Your task to perform on an android device: change the clock style Image 0: 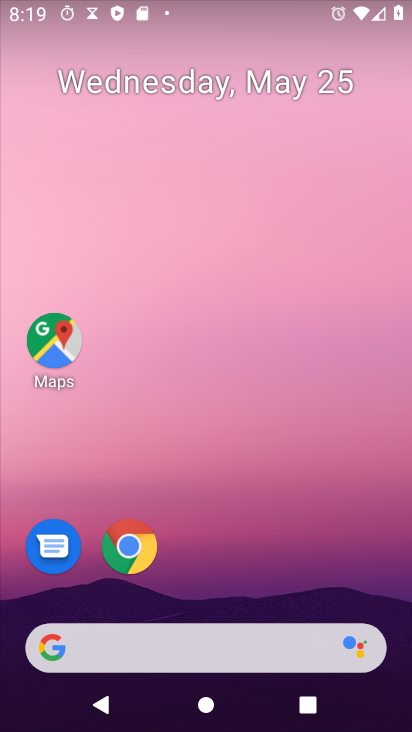
Step 0: drag from (200, 570) to (332, 9)
Your task to perform on an android device: change the clock style Image 1: 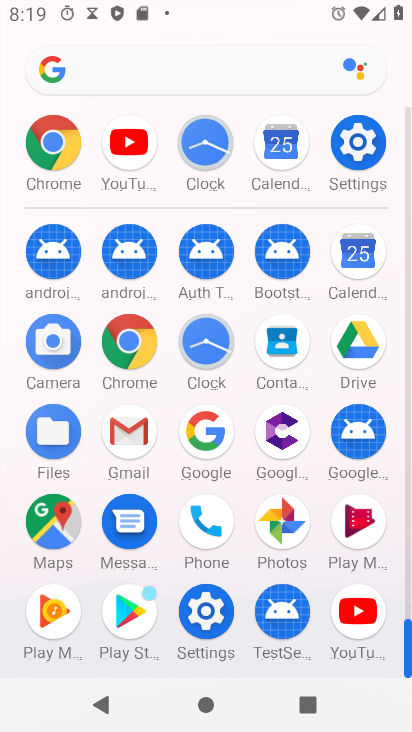
Step 1: click (195, 148)
Your task to perform on an android device: change the clock style Image 2: 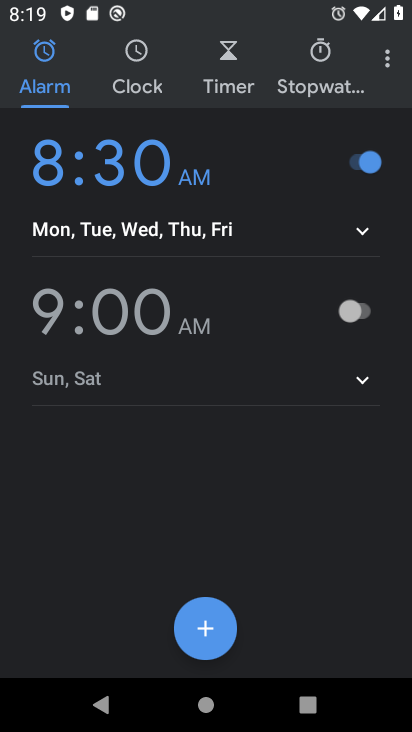
Step 2: click (387, 69)
Your task to perform on an android device: change the clock style Image 3: 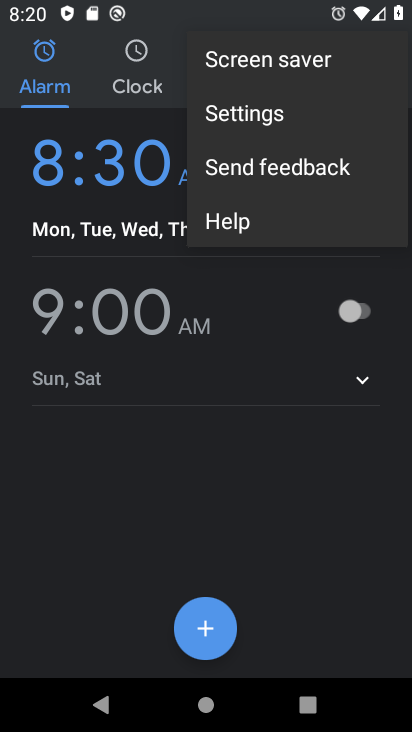
Step 3: click (237, 109)
Your task to perform on an android device: change the clock style Image 4: 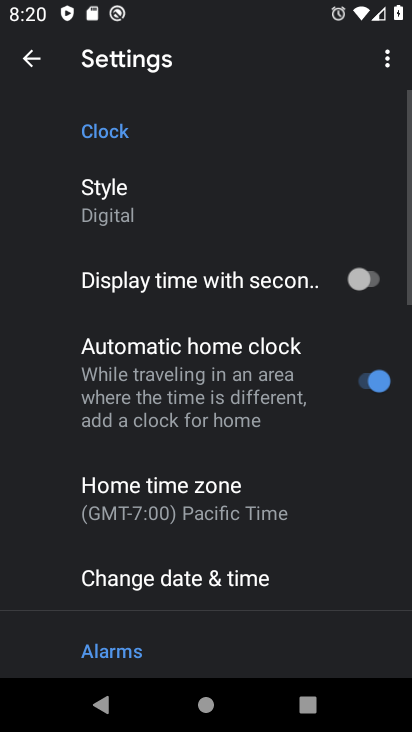
Step 4: click (113, 195)
Your task to perform on an android device: change the clock style Image 5: 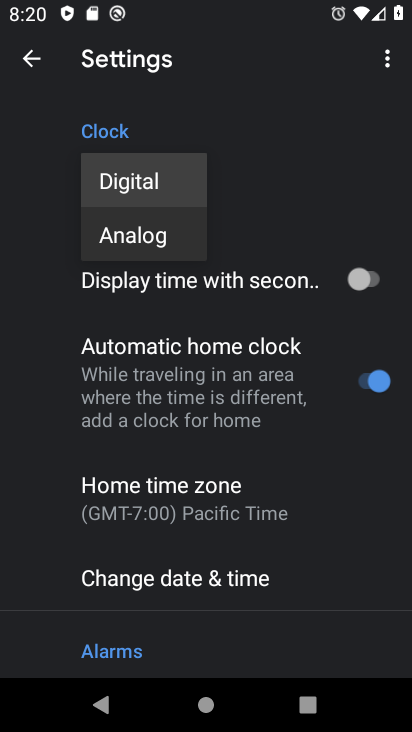
Step 5: click (133, 233)
Your task to perform on an android device: change the clock style Image 6: 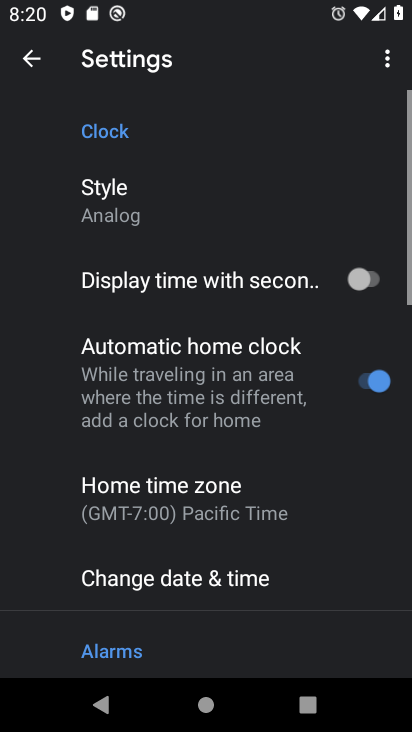
Step 6: task complete